Your task to perform on an android device: toggle data saver in the chrome app Image 0: 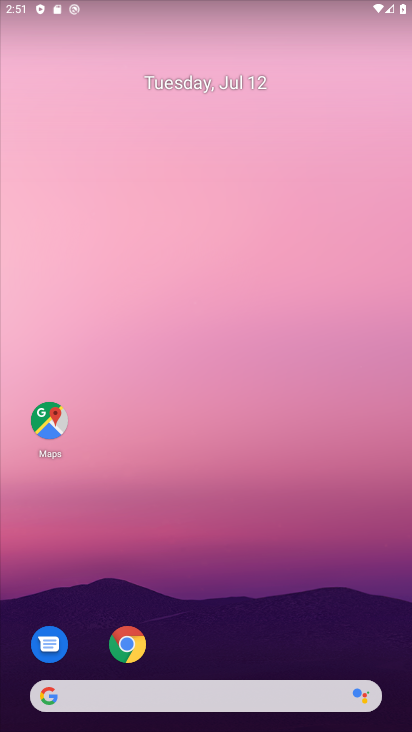
Step 0: click (131, 647)
Your task to perform on an android device: toggle data saver in the chrome app Image 1: 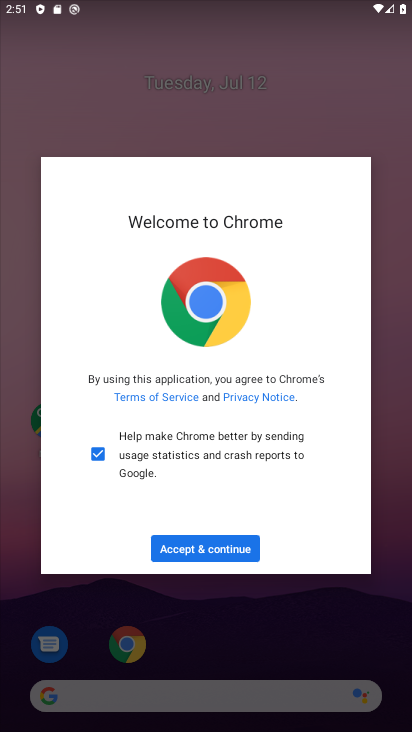
Step 1: click (229, 541)
Your task to perform on an android device: toggle data saver in the chrome app Image 2: 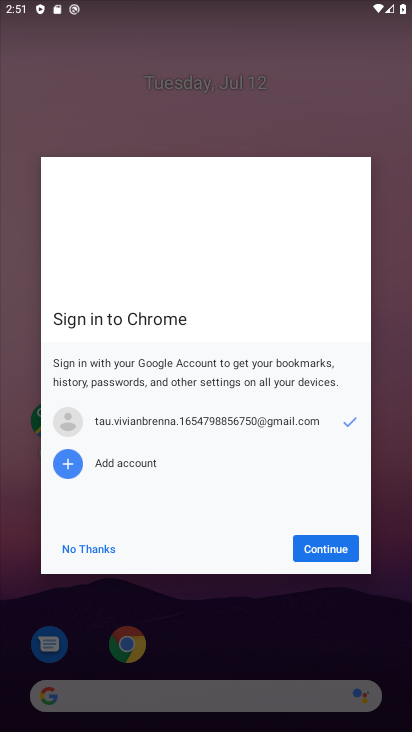
Step 2: click (321, 537)
Your task to perform on an android device: toggle data saver in the chrome app Image 3: 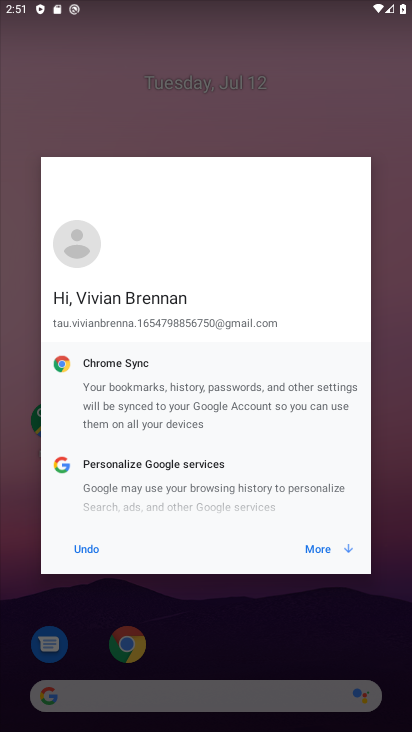
Step 3: click (313, 550)
Your task to perform on an android device: toggle data saver in the chrome app Image 4: 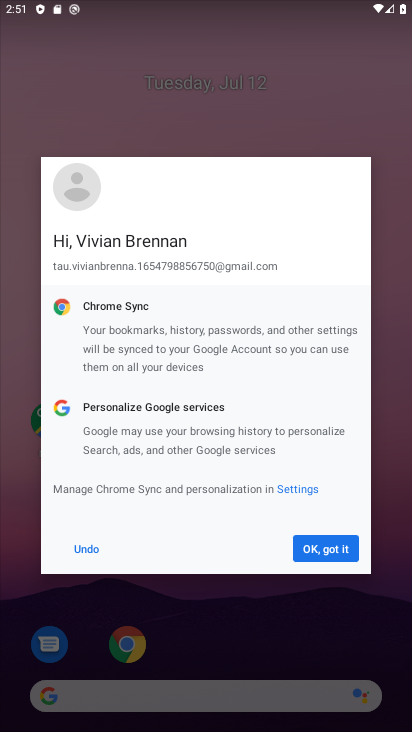
Step 4: click (313, 550)
Your task to perform on an android device: toggle data saver in the chrome app Image 5: 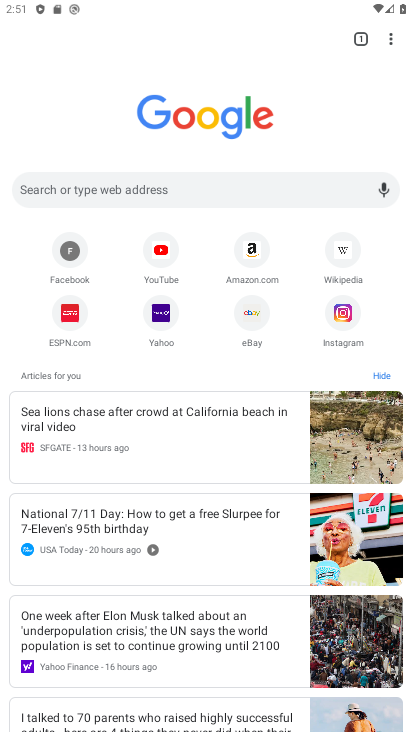
Step 5: click (383, 36)
Your task to perform on an android device: toggle data saver in the chrome app Image 6: 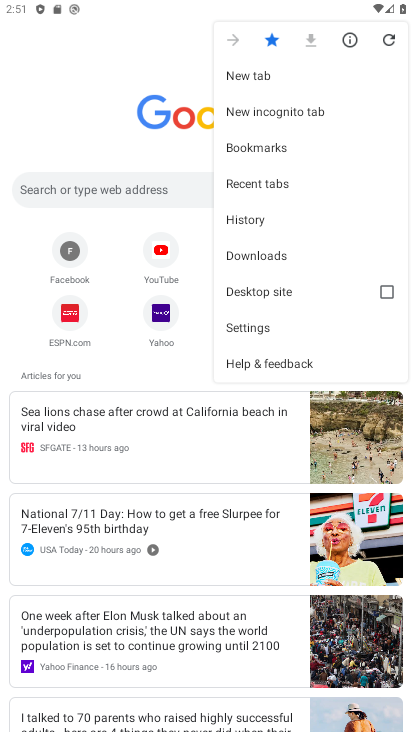
Step 6: click (289, 338)
Your task to perform on an android device: toggle data saver in the chrome app Image 7: 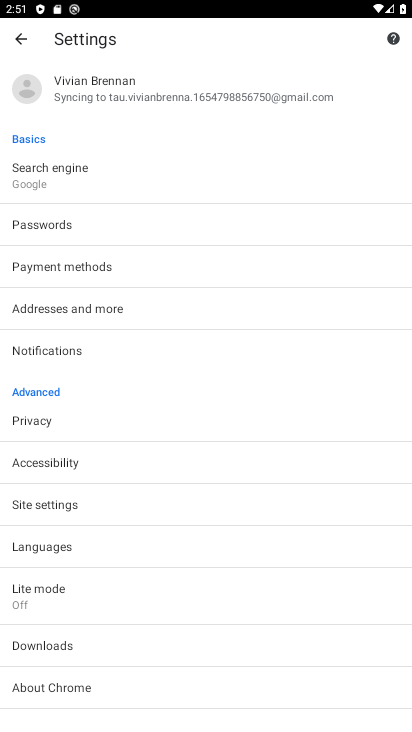
Step 7: click (42, 588)
Your task to perform on an android device: toggle data saver in the chrome app Image 8: 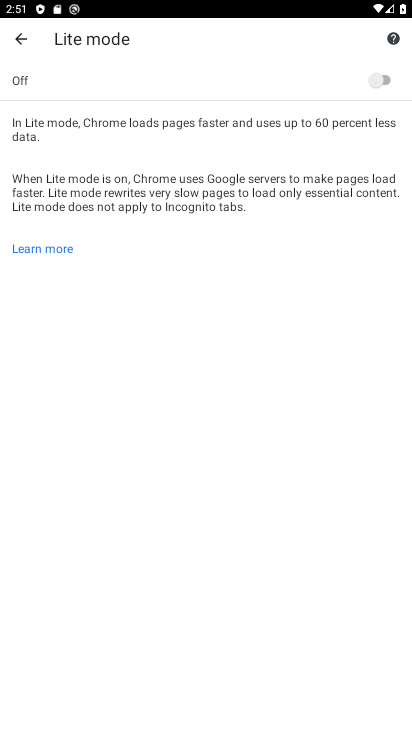
Step 8: click (371, 90)
Your task to perform on an android device: toggle data saver in the chrome app Image 9: 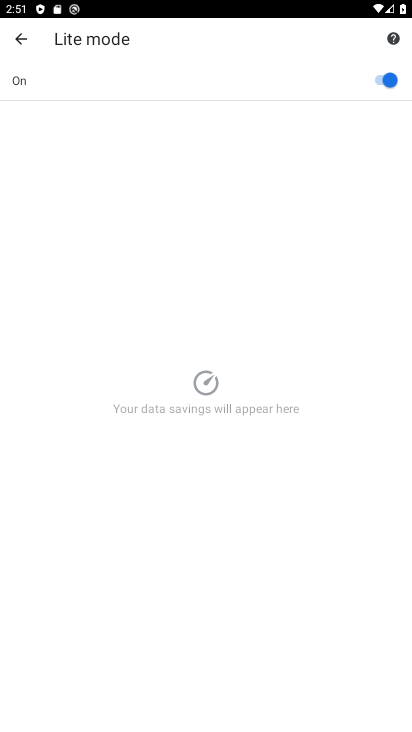
Step 9: task complete